Your task to perform on an android device: turn on the 24-hour format for clock Image 0: 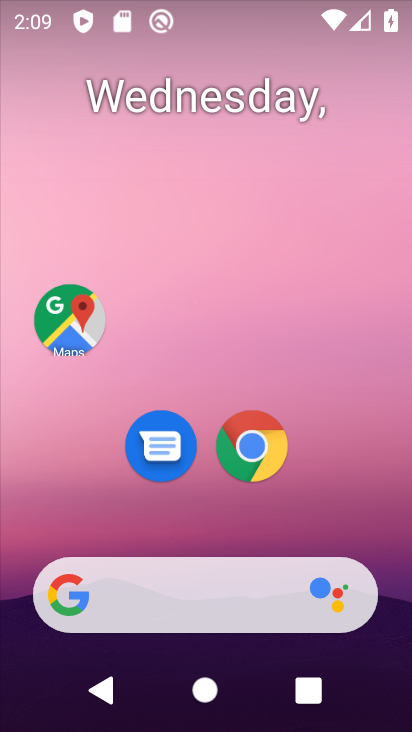
Step 0: drag from (342, 518) to (249, 172)
Your task to perform on an android device: turn on the 24-hour format for clock Image 1: 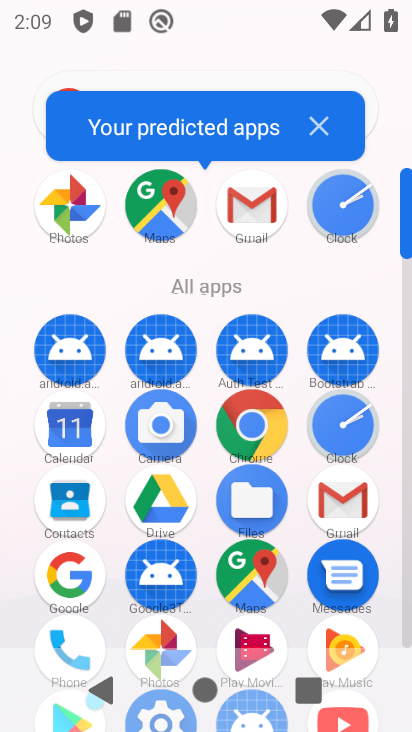
Step 1: click (359, 204)
Your task to perform on an android device: turn on the 24-hour format for clock Image 2: 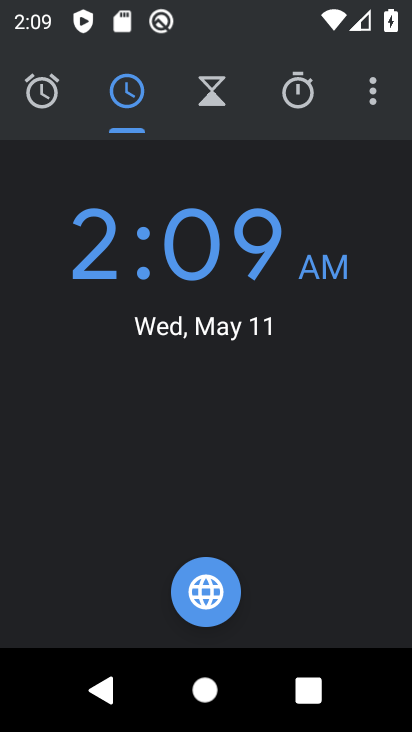
Step 2: click (376, 100)
Your task to perform on an android device: turn on the 24-hour format for clock Image 3: 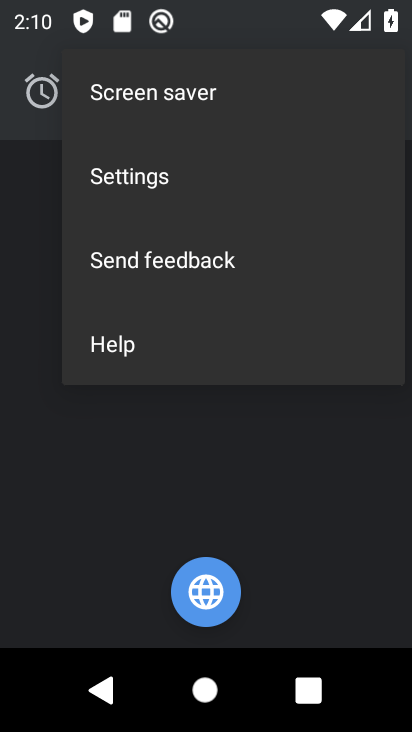
Step 3: click (155, 182)
Your task to perform on an android device: turn on the 24-hour format for clock Image 4: 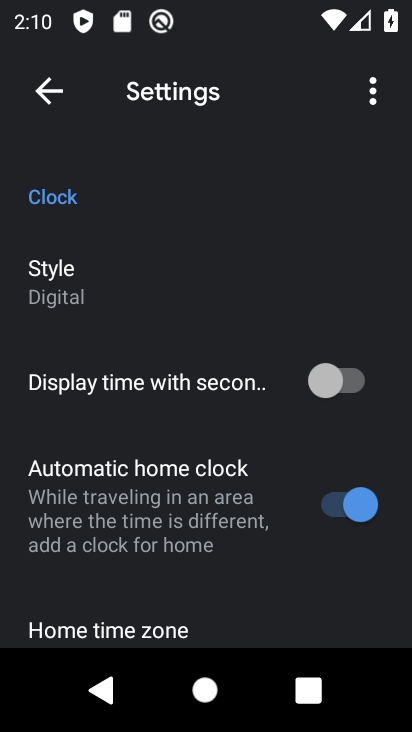
Step 4: drag from (148, 521) to (136, 275)
Your task to perform on an android device: turn on the 24-hour format for clock Image 5: 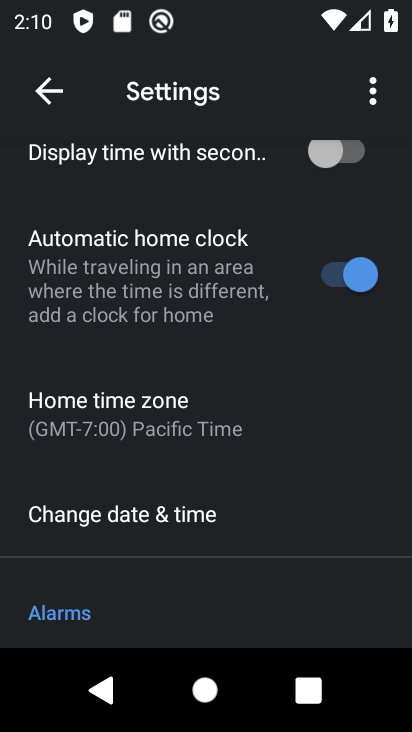
Step 5: click (74, 518)
Your task to perform on an android device: turn on the 24-hour format for clock Image 6: 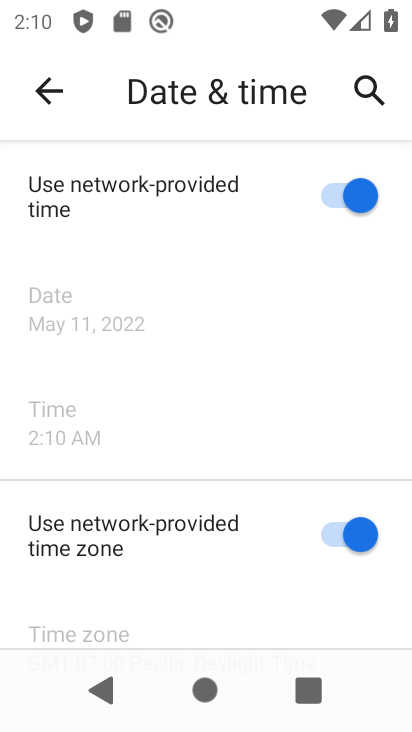
Step 6: drag from (156, 589) to (175, 235)
Your task to perform on an android device: turn on the 24-hour format for clock Image 7: 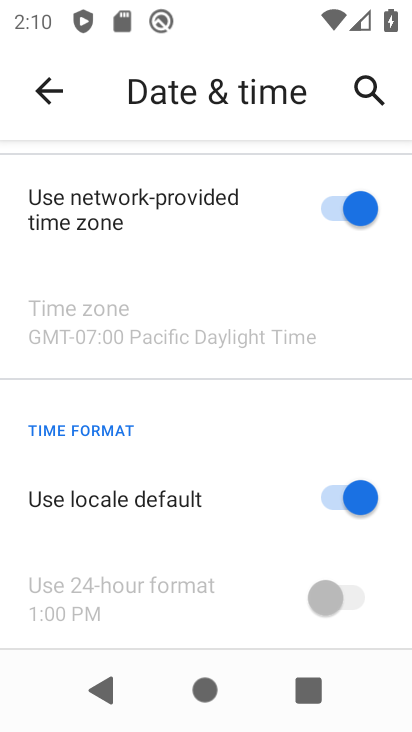
Step 7: click (347, 496)
Your task to perform on an android device: turn on the 24-hour format for clock Image 8: 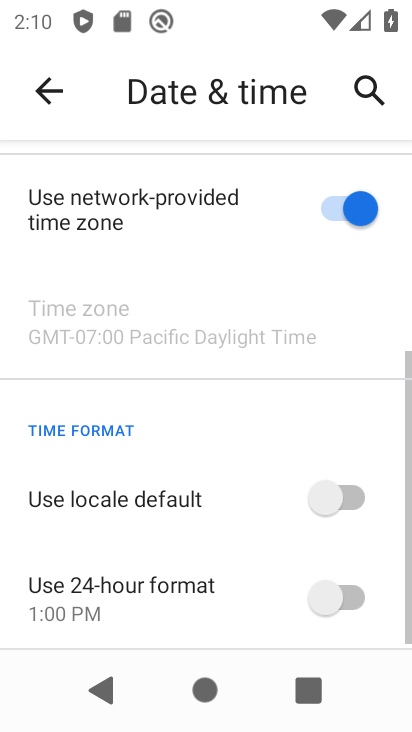
Step 8: click (332, 600)
Your task to perform on an android device: turn on the 24-hour format for clock Image 9: 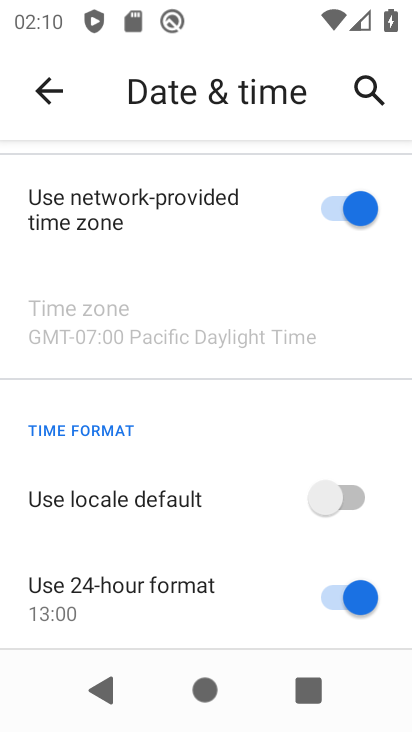
Step 9: task complete